Your task to perform on an android device: Open sound settings Image 0: 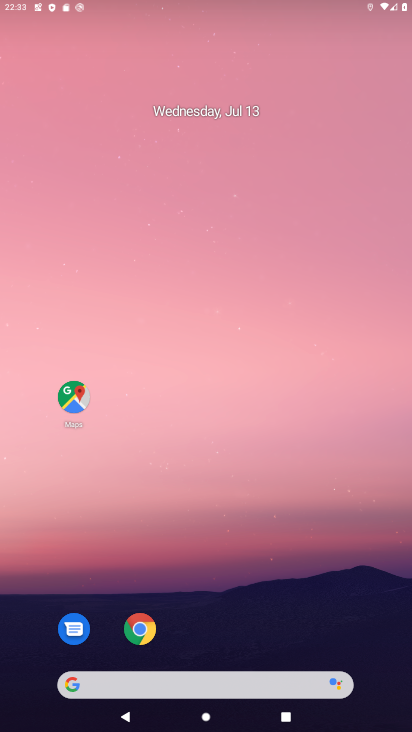
Step 0: press home button
Your task to perform on an android device: Open sound settings Image 1: 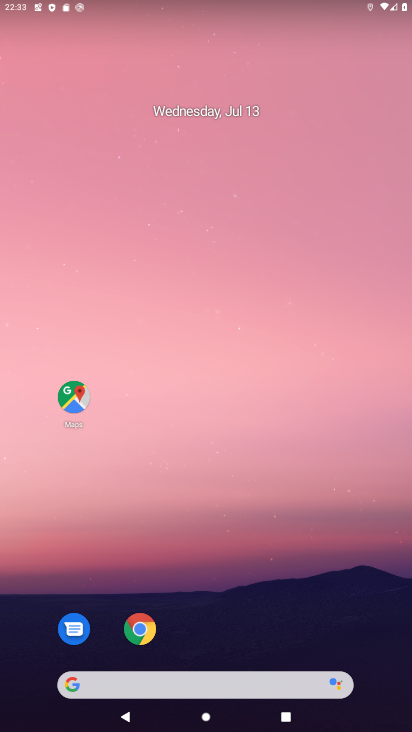
Step 1: drag from (220, 659) to (277, 50)
Your task to perform on an android device: Open sound settings Image 2: 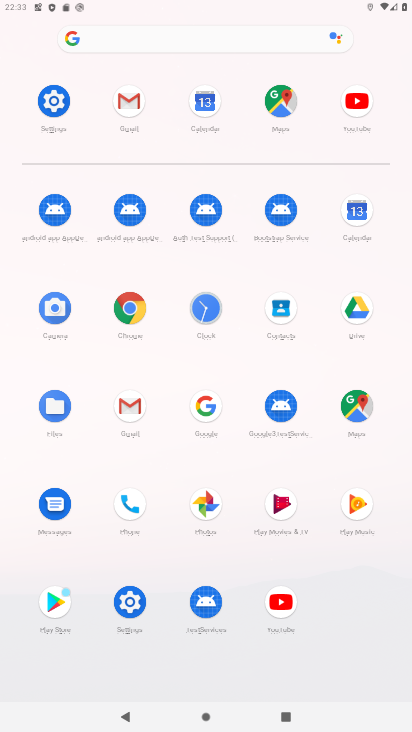
Step 2: click (52, 94)
Your task to perform on an android device: Open sound settings Image 3: 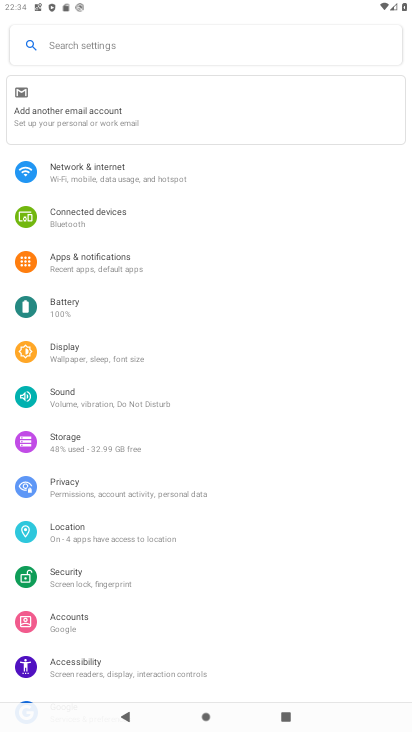
Step 3: click (89, 395)
Your task to perform on an android device: Open sound settings Image 4: 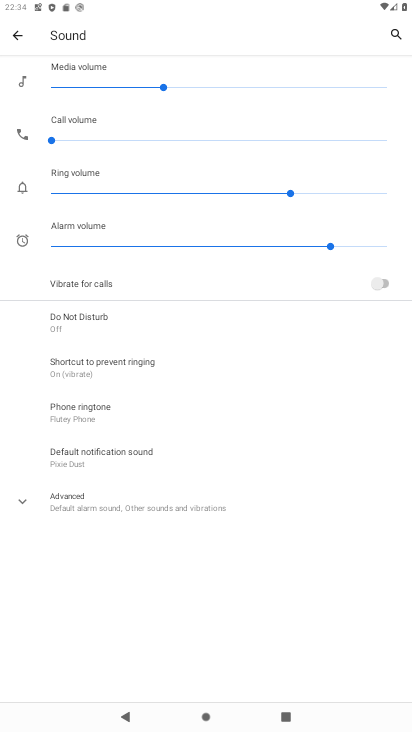
Step 4: task complete